Your task to perform on an android device: Check the news Image 0: 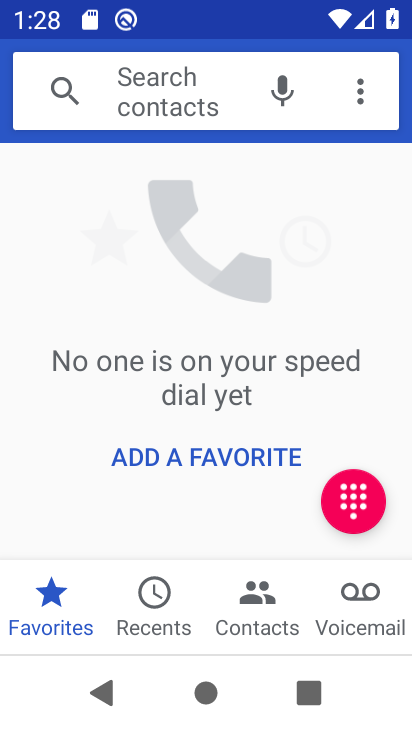
Step 0: press home button
Your task to perform on an android device: Check the news Image 1: 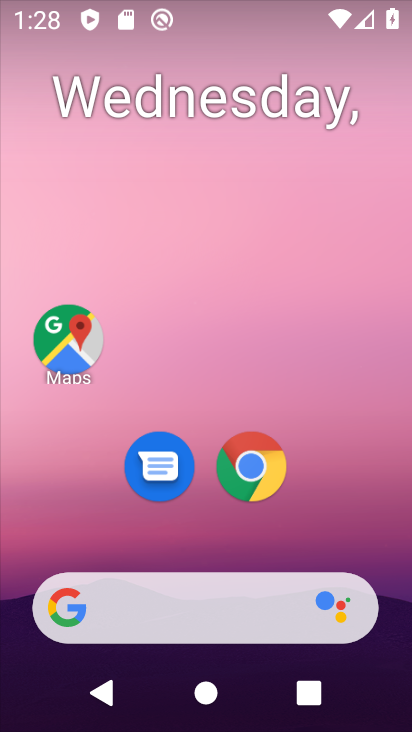
Step 1: click (75, 604)
Your task to perform on an android device: Check the news Image 2: 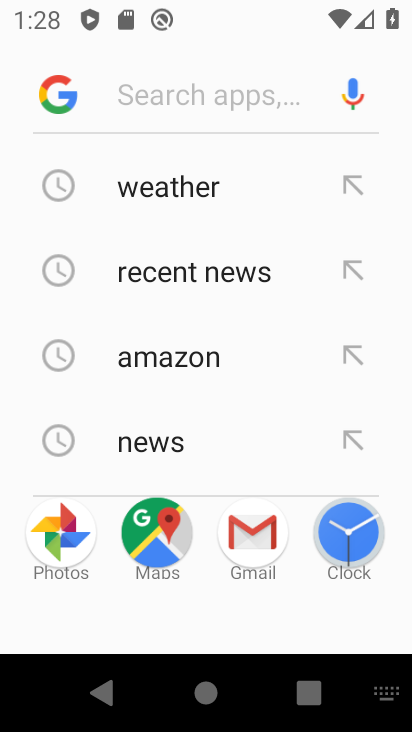
Step 2: click (182, 275)
Your task to perform on an android device: Check the news Image 3: 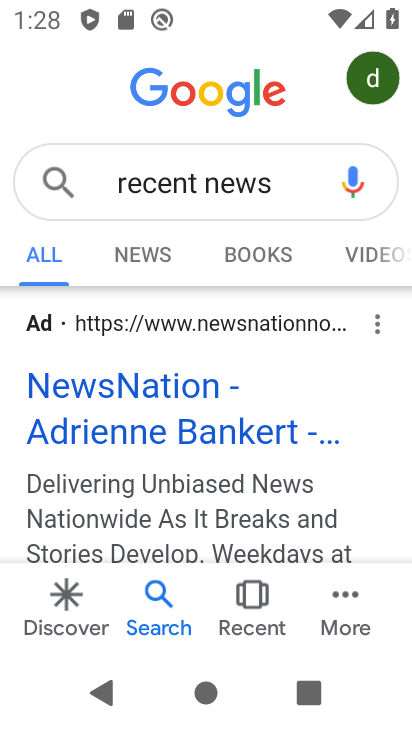
Step 3: click (151, 253)
Your task to perform on an android device: Check the news Image 4: 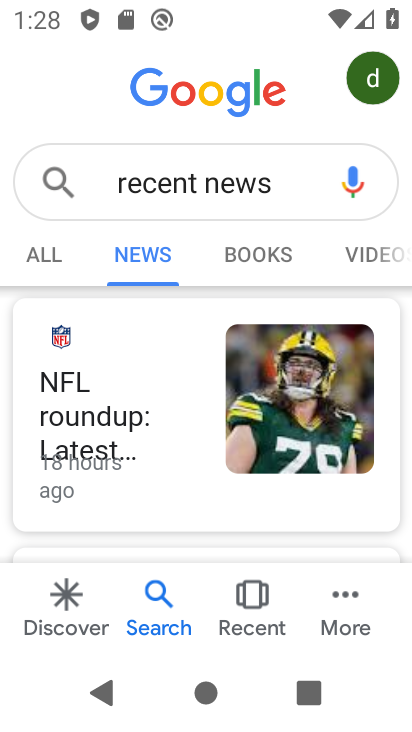
Step 4: task complete